Your task to perform on an android device: toggle notifications settings in the gmail app Image 0: 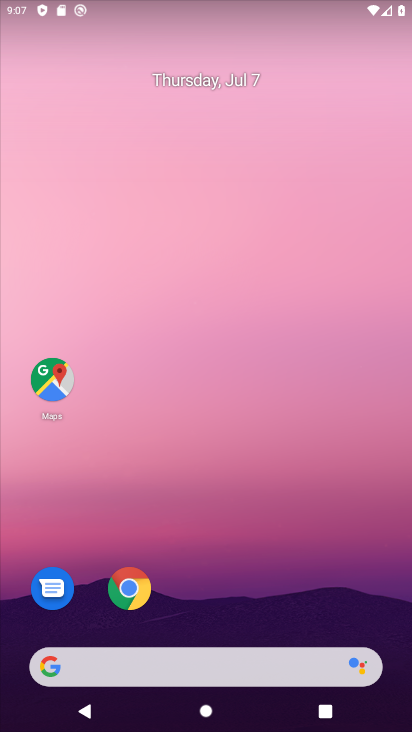
Step 0: click (133, 582)
Your task to perform on an android device: toggle notifications settings in the gmail app Image 1: 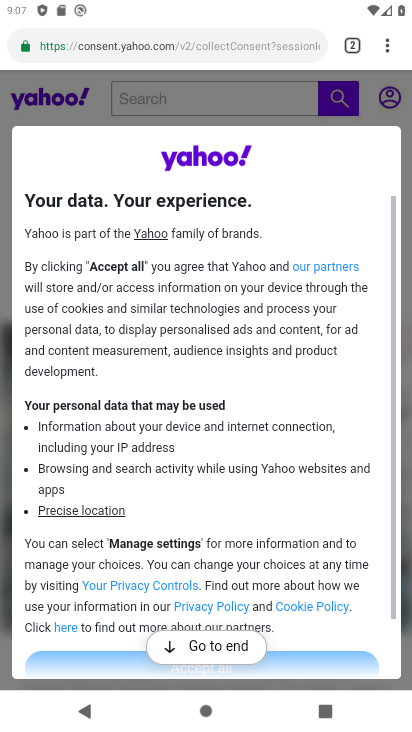
Step 1: drag from (201, 11) to (205, 416)
Your task to perform on an android device: toggle notifications settings in the gmail app Image 2: 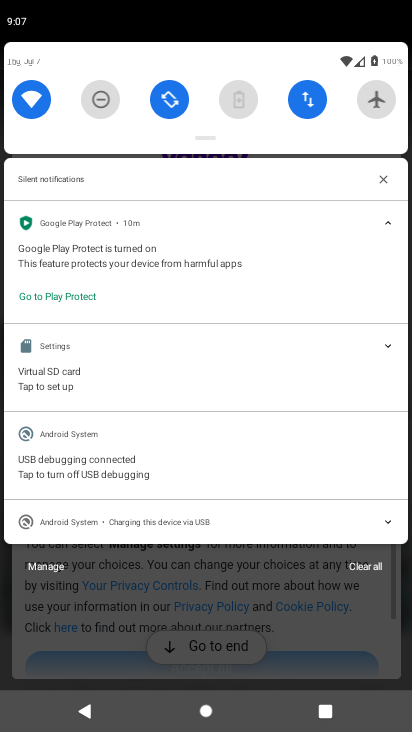
Step 2: drag from (231, 58) to (151, 467)
Your task to perform on an android device: toggle notifications settings in the gmail app Image 3: 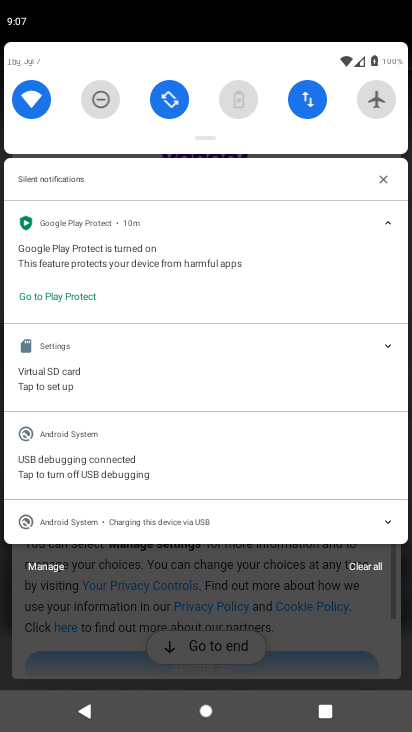
Step 3: drag from (217, 61) to (170, 531)
Your task to perform on an android device: toggle notifications settings in the gmail app Image 4: 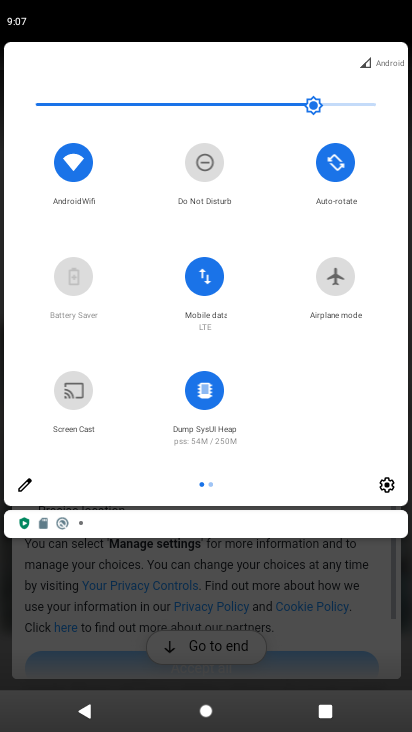
Step 4: click (386, 487)
Your task to perform on an android device: toggle notifications settings in the gmail app Image 5: 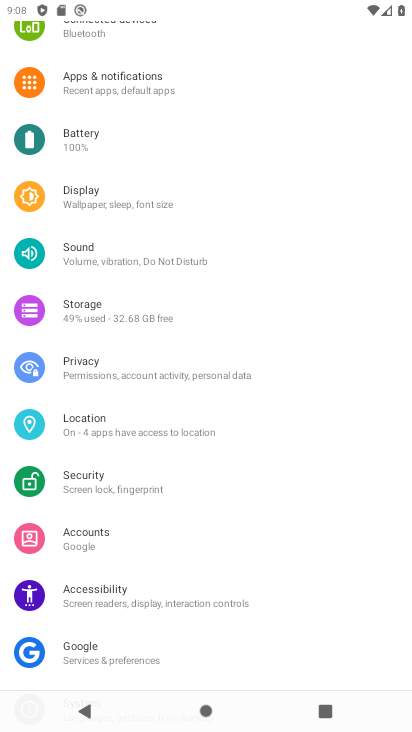
Step 5: click (111, 96)
Your task to perform on an android device: toggle notifications settings in the gmail app Image 6: 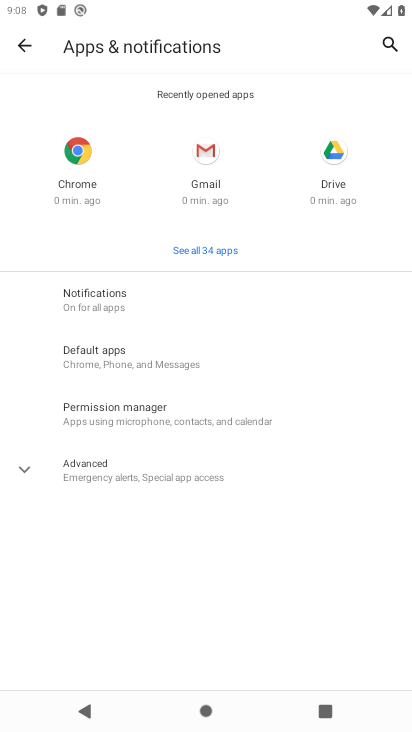
Step 6: click (216, 145)
Your task to perform on an android device: toggle notifications settings in the gmail app Image 7: 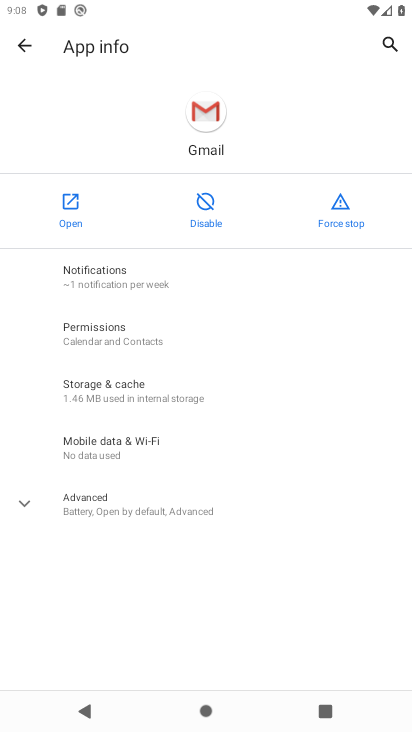
Step 7: click (129, 280)
Your task to perform on an android device: toggle notifications settings in the gmail app Image 8: 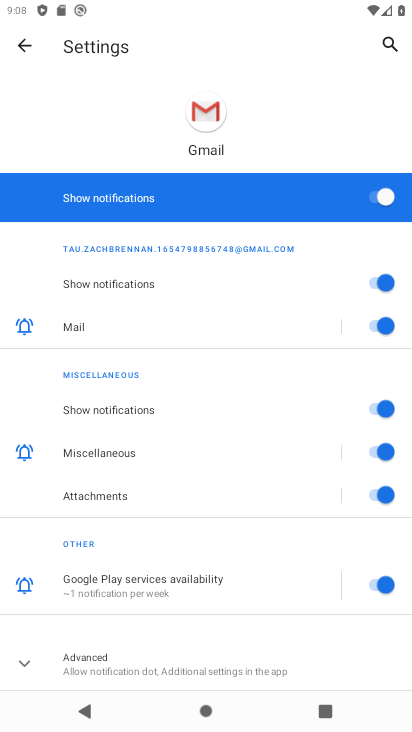
Step 8: click (372, 195)
Your task to perform on an android device: toggle notifications settings in the gmail app Image 9: 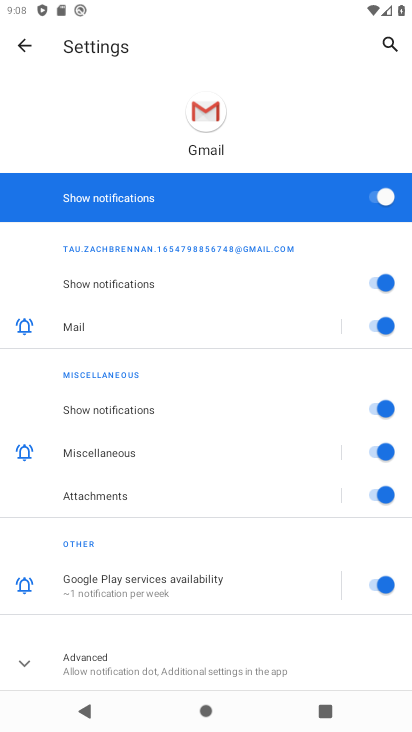
Step 9: click (372, 195)
Your task to perform on an android device: toggle notifications settings in the gmail app Image 10: 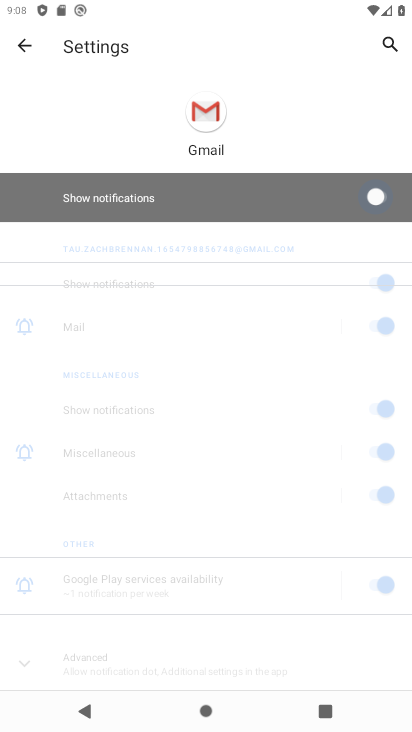
Step 10: click (372, 195)
Your task to perform on an android device: toggle notifications settings in the gmail app Image 11: 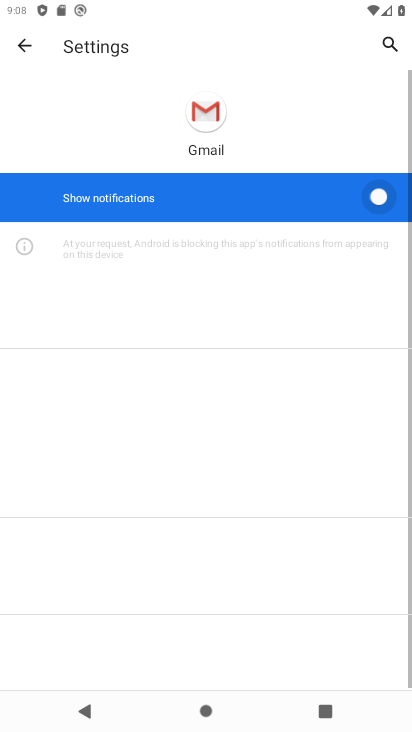
Step 11: click (372, 195)
Your task to perform on an android device: toggle notifications settings in the gmail app Image 12: 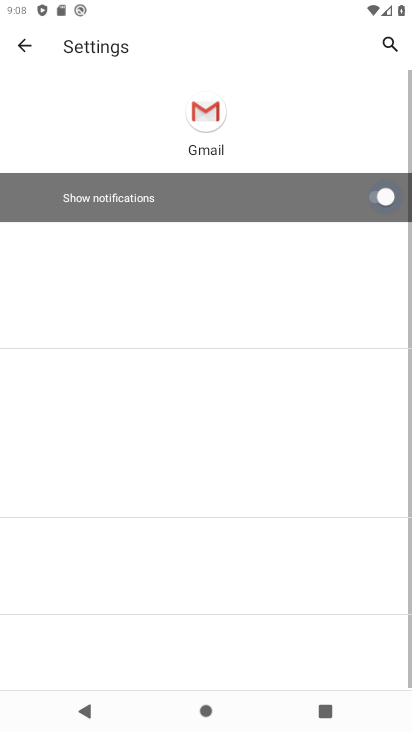
Step 12: click (372, 195)
Your task to perform on an android device: toggle notifications settings in the gmail app Image 13: 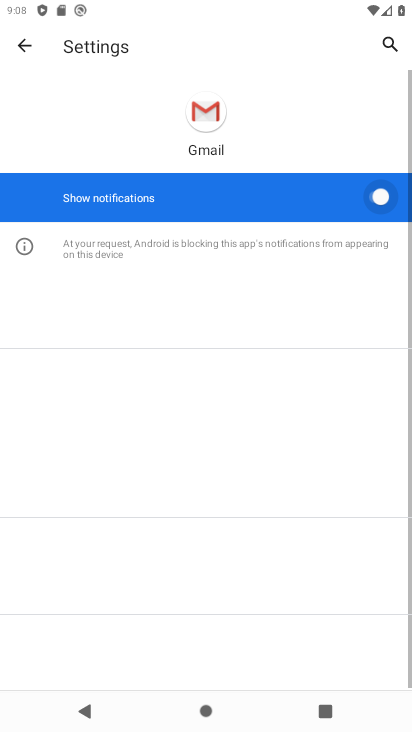
Step 13: click (372, 195)
Your task to perform on an android device: toggle notifications settings in the gmail app Image 14: 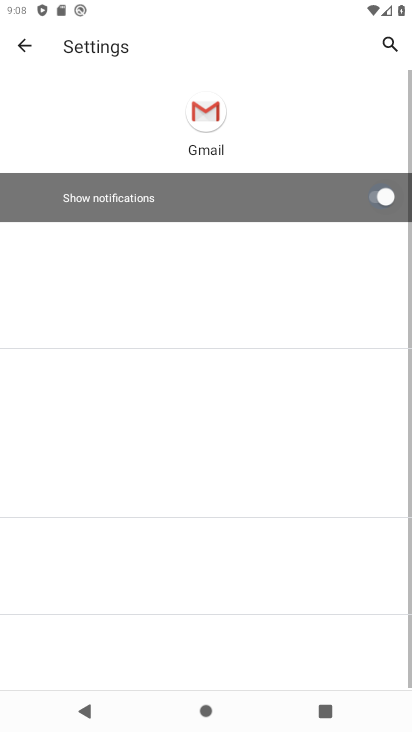
Step 14: click (372, 195)
Your task to perform on an android device: toggle notifications settings in the gmail app Image 15: 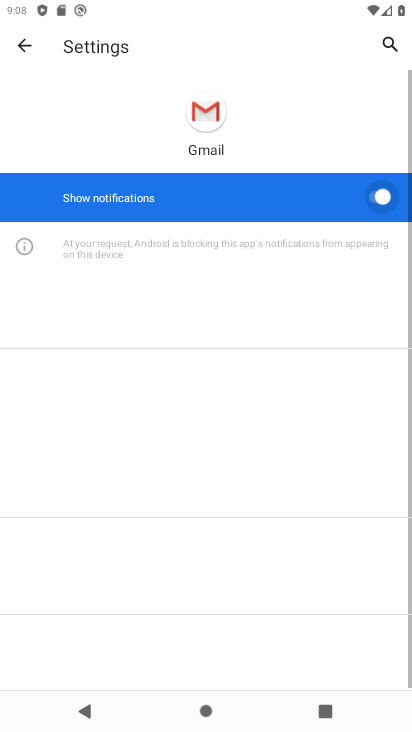
Step 15: click (372, 195)
Your task to perform on an android device: toggle notifications settings in the gmail app Image 16: 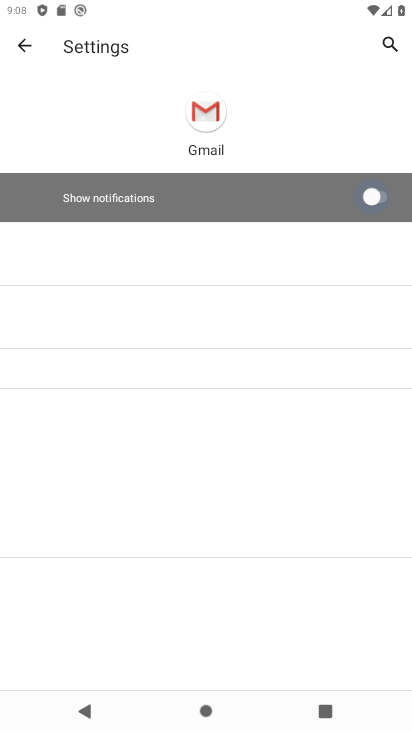
Step 16: click (372, 195)
Your task to perform on an android device: toggle notifications settings in the gmail app Image 17: 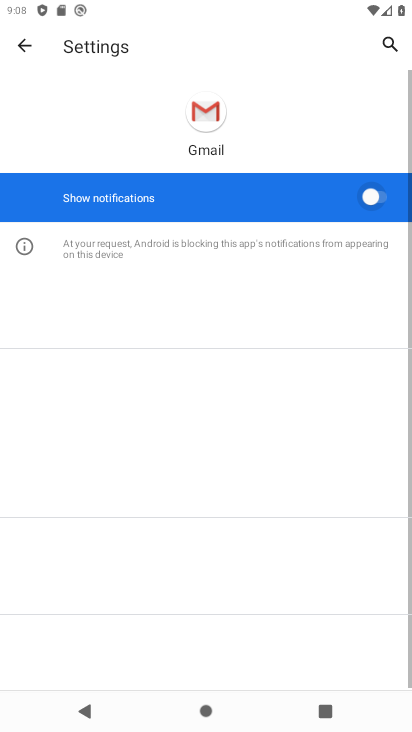
Step 17: click (372, 195)
Your task to perform on an android device: toggle notifications settings in the gmail app Image 18: 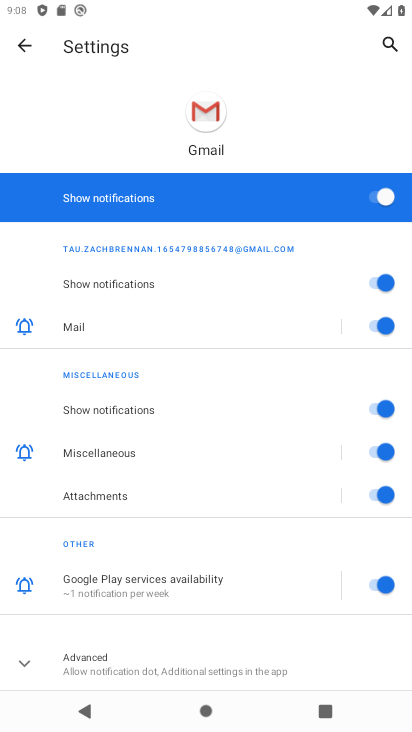
Step 18: task complete